Your task to perform on an android device: Open calendar and show me the third week of next month Image 0: 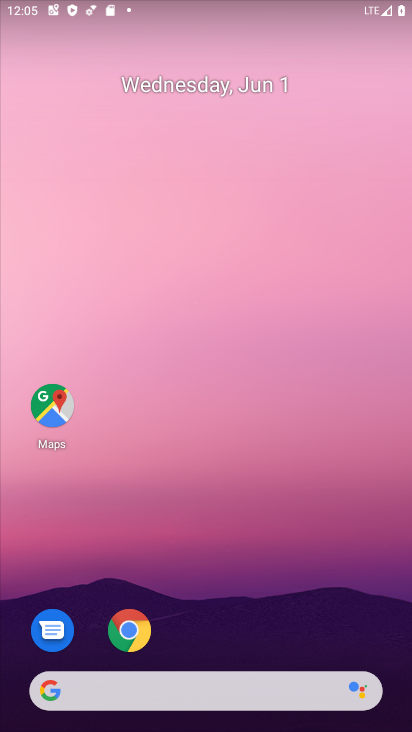
Step 0: press home button
Your task to perform on an android device: Open calendar and show me the third week of next month Image 1: 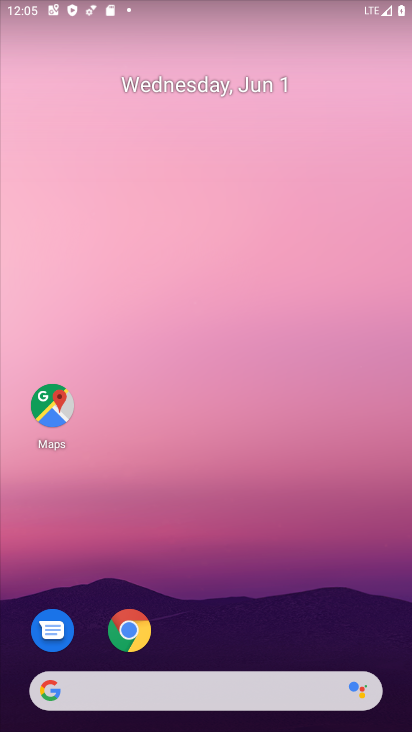
Step 1: drag from (275, 616) to (290, 154)
Your task to perform on an android device: Open calendar and show me the third week of next month Image 2: 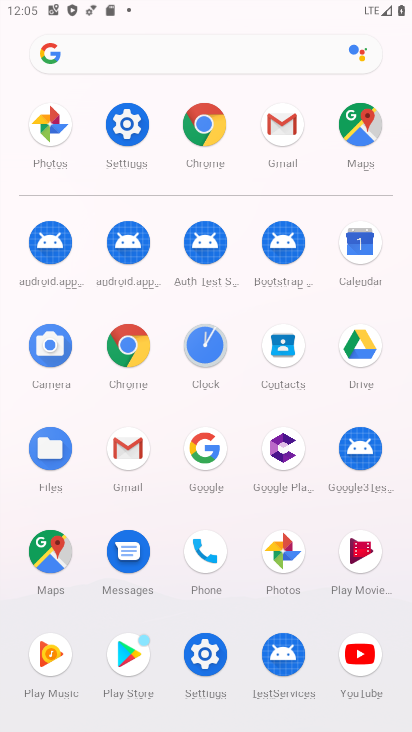
Step 2: click (353, 250)
Your task to perform on an android device: Open calendar and show me the third week of next month Image 3: 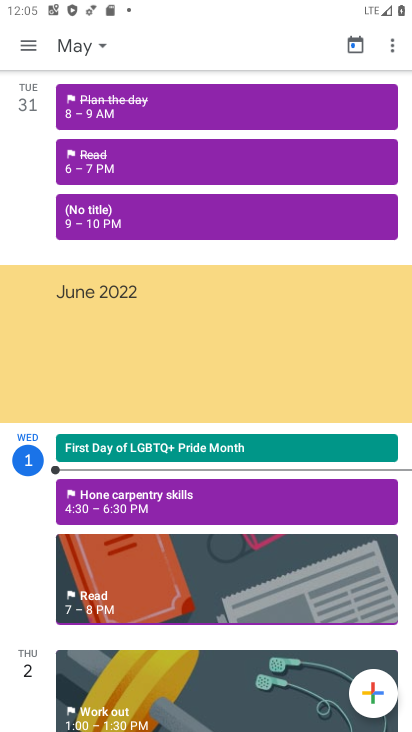
Step 3: click (24, 45)
Your task to perform on an android device: Open calendar and show me the third week of next month Image 4: 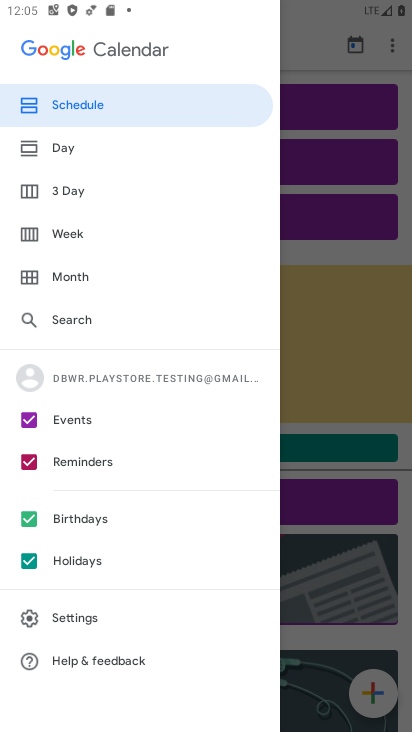
Step 4: click (77, 282)
Your task to perform on an android device: Open calendar and show me the third week of next month Image 5: 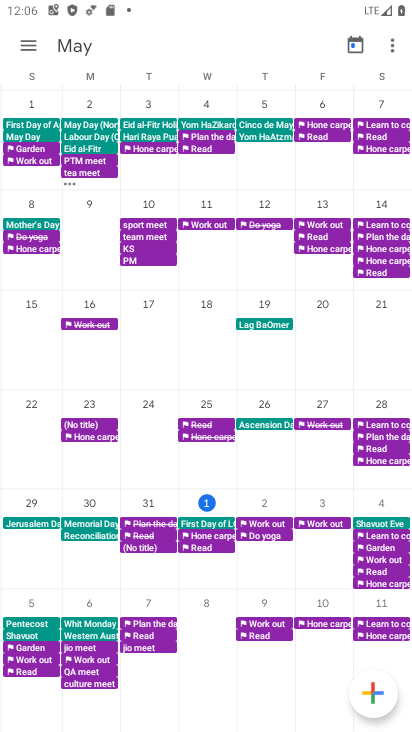
Step 5: drag from (370, 370) to (23, 306)
Your task to perform on an android device: Open calendar and show me the third week of next month Image 6: 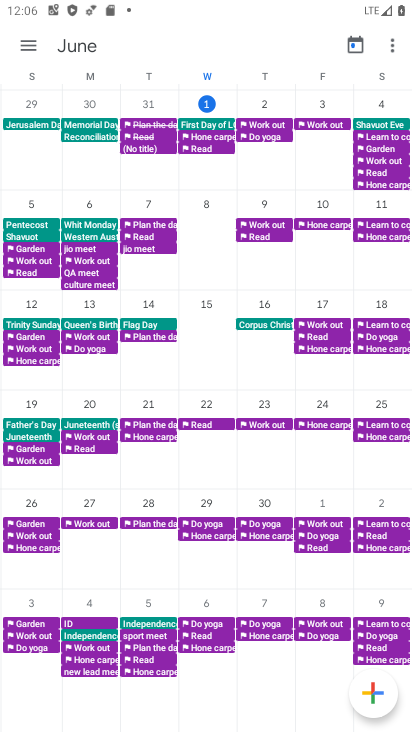
Step 6: drag from (370, 378) to (0, 385)
Your task to perform on an android device: Open calendar and show me the third week of next month Image 7: 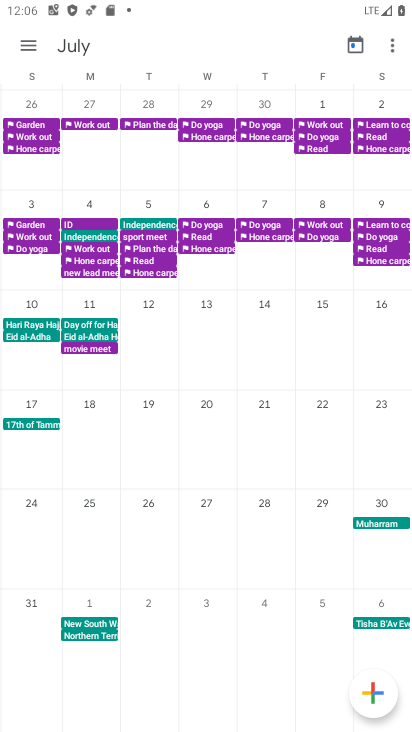
Step 7: click (19, 304)
Your task to perform on an android device: Open calendar and show me the third week of next month Image 8: 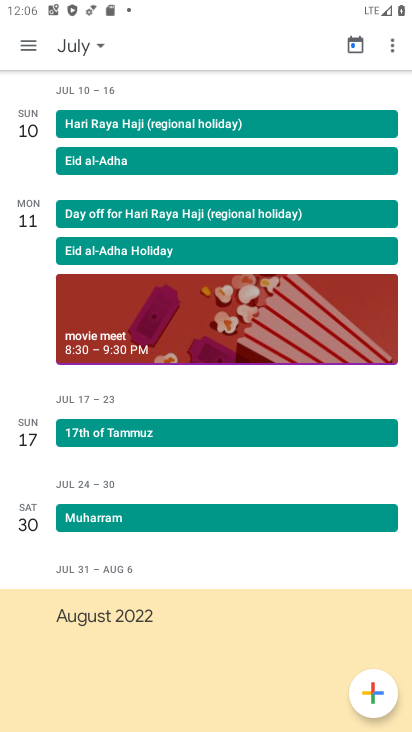
Step 8: task complete